Your task to perform on an android device: Go to privacy settings Image 0: 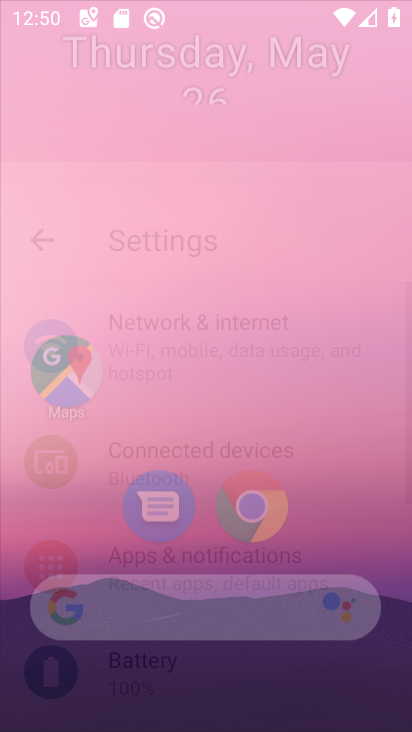
Step 0: press home button
Your task to perform on an android device: Go to privacy settings Image 1: 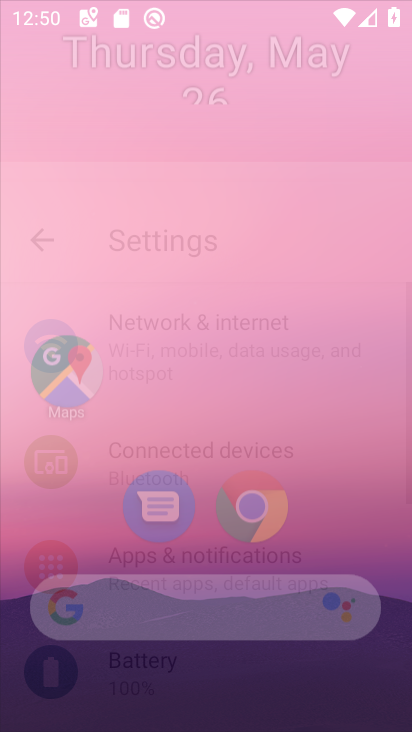
Step 1: click (312, 69)
Your task to perform on an android device: Go to privacy settings Image 2: 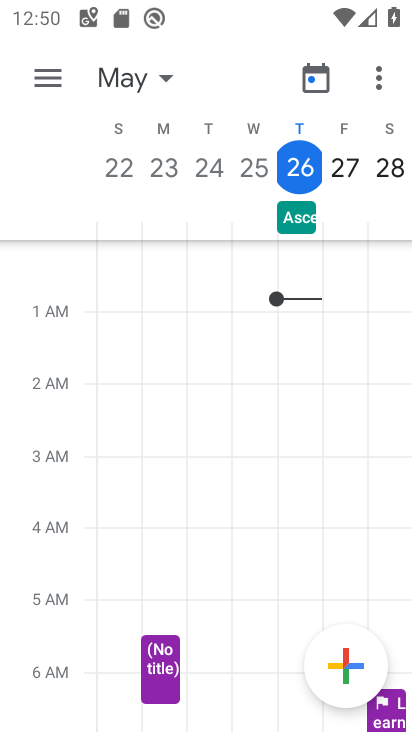
Step 2: press home button
Your task to perform on an android device: Go to privacy settings Image 3: 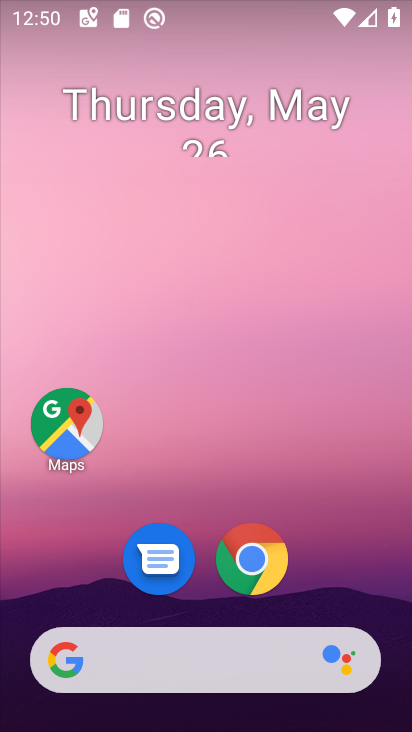
Step 3: drag from (322, 610) to (335, 113)
Your task to perform on an android device: Go to privacy settings Image 4: 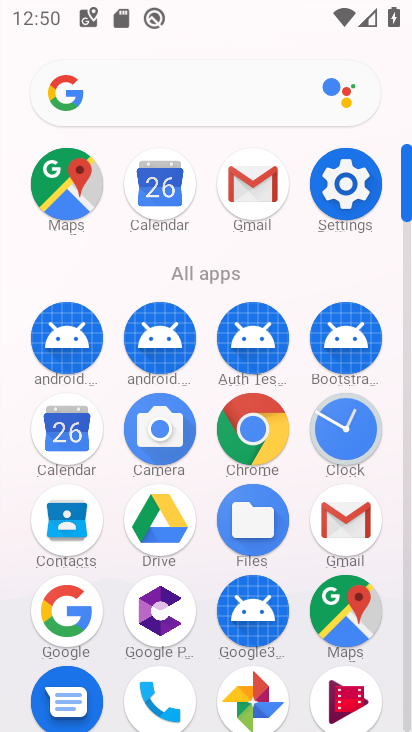
Step 4: click (337, 197)
Your task to perform on an android device: Go to privacy settings Image 5: 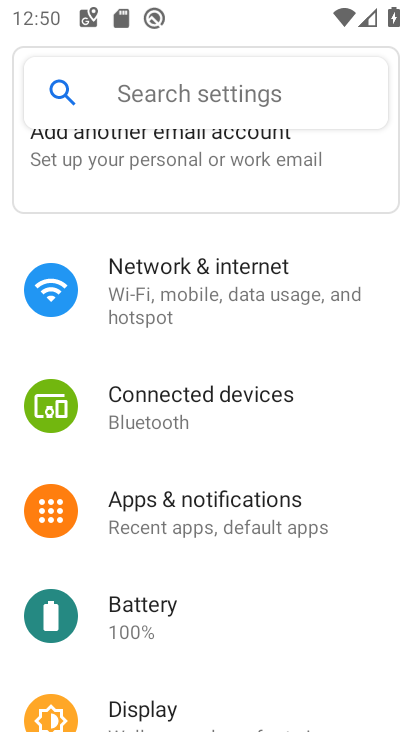
Step 5: drag from (291, 626) to (270, 110)
Your task to perform on an android device: Go to privacy settings Image 6: 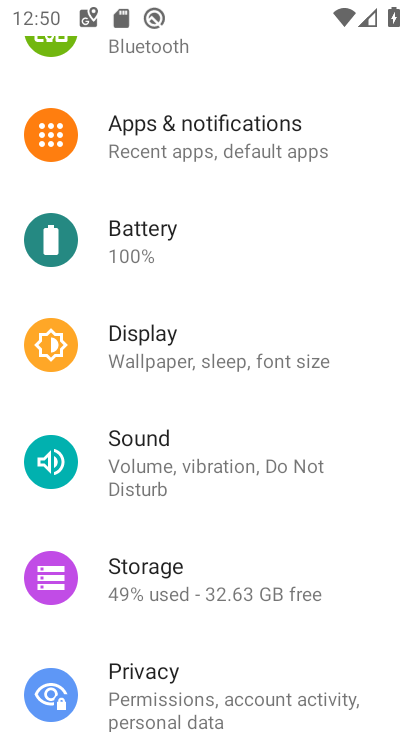
Step 6: click (148, 671)
Your task to perform on an android device: Go to privacy settings Image 7: 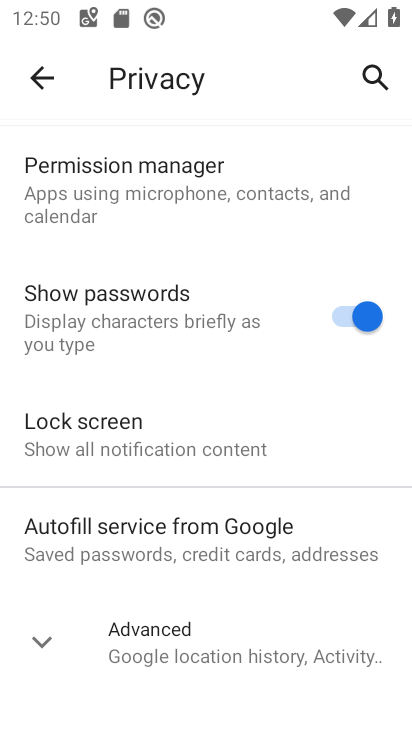
Step 7: task complete